Your task to perform on an android device: Go to Yahoo.com Image 0: 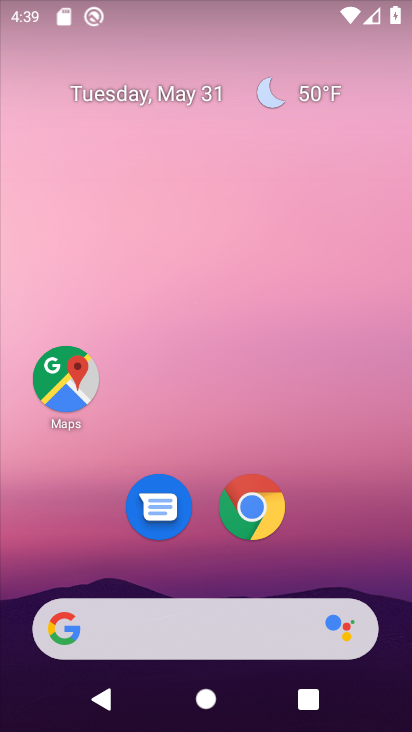
Step 0: click (253, 631)
Your task to perform on an android device: Go to Yahoo.com Image 1: 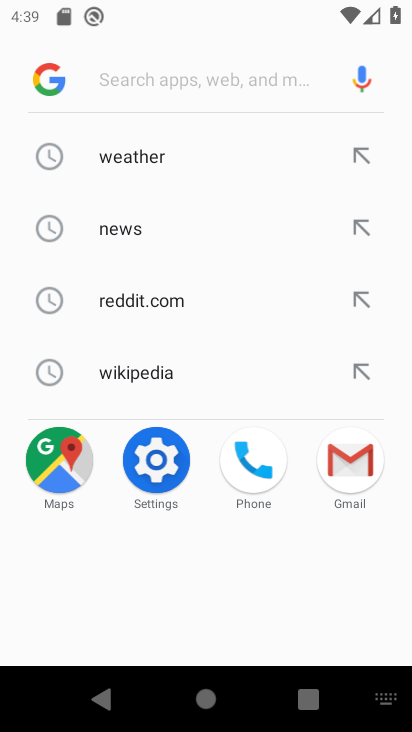
Step 1: type "yahoo.com"
Your task to perform on an android device: Go to Yahoo.com Image 2: 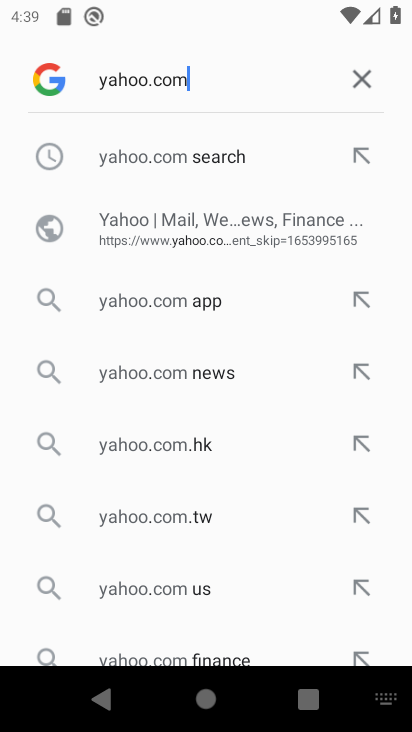
Step 2: click (134, 226)
Your task to perform on an android device: Go to Yahoo.com Image 3: 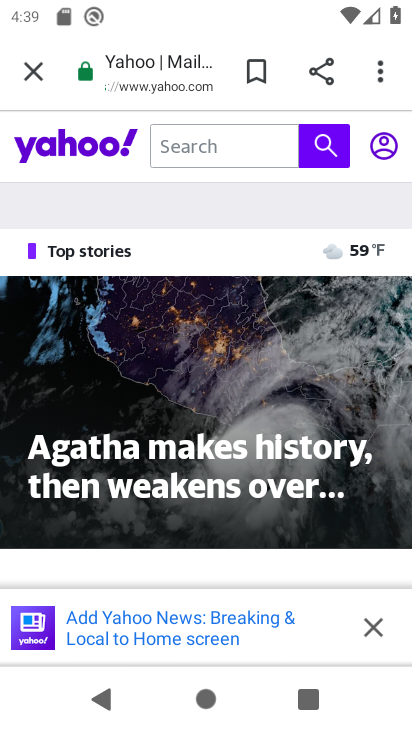
Step 3: task complete